Your task to perform on an android device: turn off translation in the chrome app Image 0: 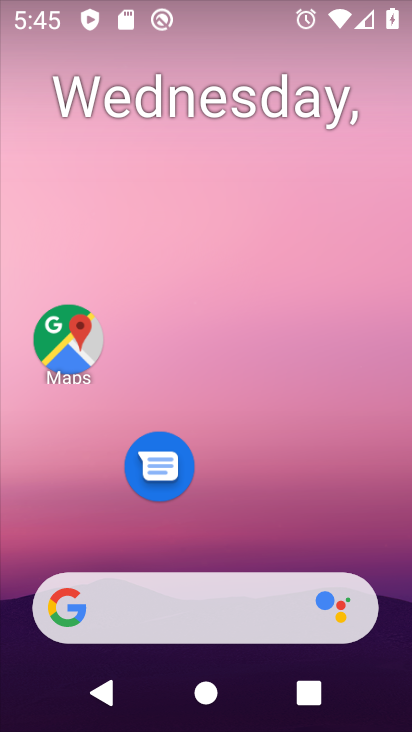
Step 0: drag from (263, 539) to (267, 127)
Your task to perform on an android device: turn off translation in the chrome app Image 1: 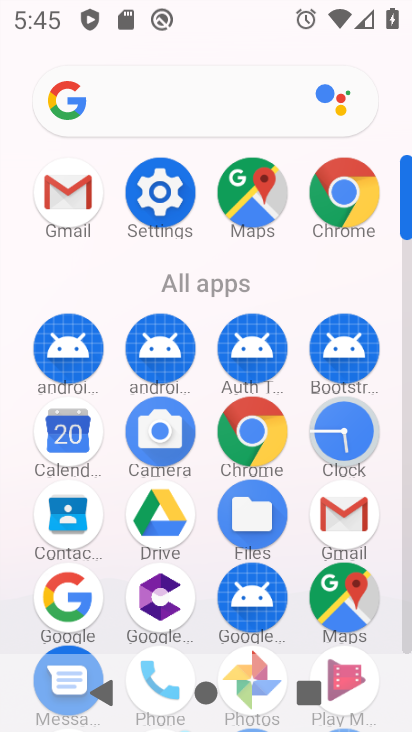
Step 1: click (264, 429)
Your task to perform on an android device: turn off translation in the chrome app Image 2: 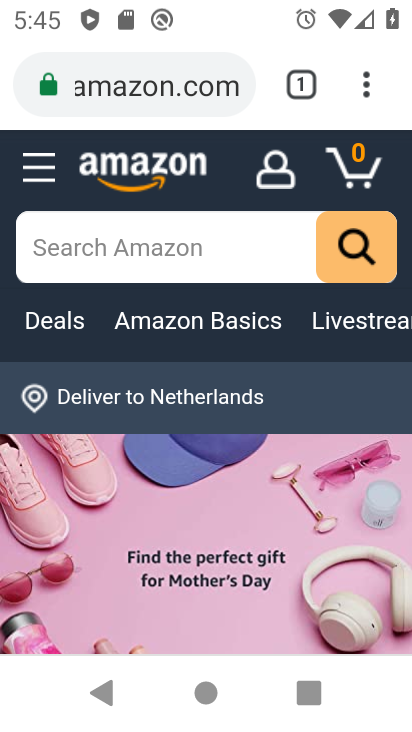
Step 2: drag from (364, 85) to (147, 533)
Your task to perform on an android device: turn off translation in the chrome app Image 3: 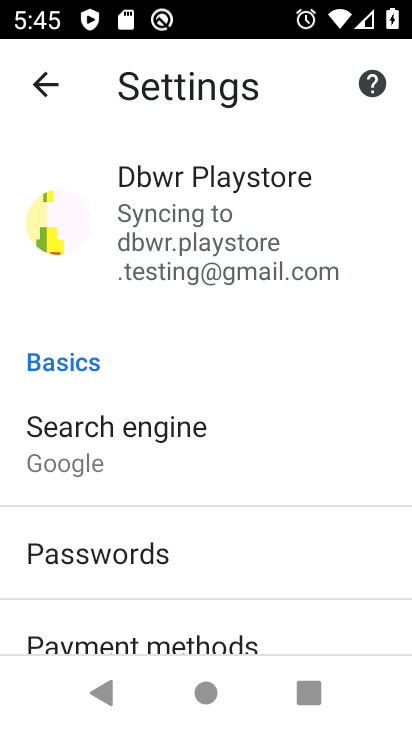
Step 3: drag from (325, 637) to (318, 242)
Your task to perform on an android device: turn off translation in the chrome app Image 4: 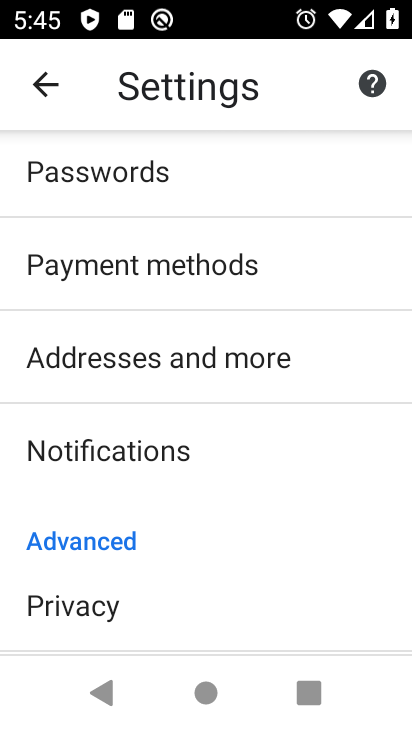
Step 4: drag from (286, 575) to (288, 214)
Your task to perform on an android device: turn off translation in the chrome app Image 5: 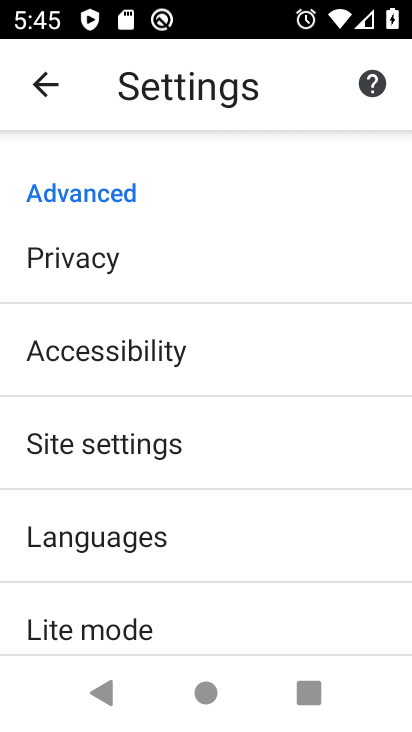
Step 5: click (162, 522)
Your task to perform on an android device: turn off translation in the chrome app Image 6: 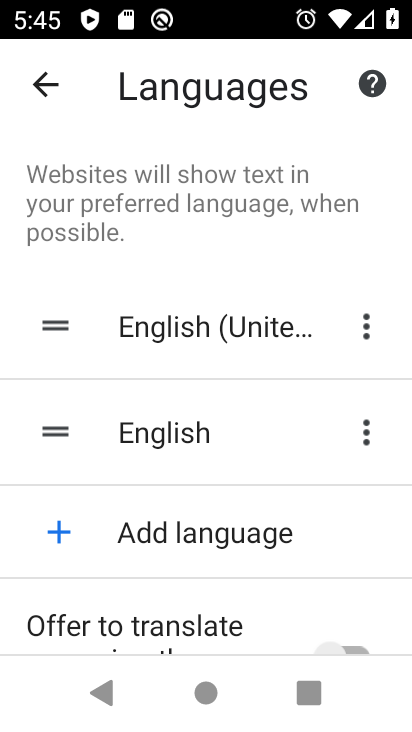
Step 6: task complete